Your task to perform on an android device: turn off improve location accuracy Image 0: 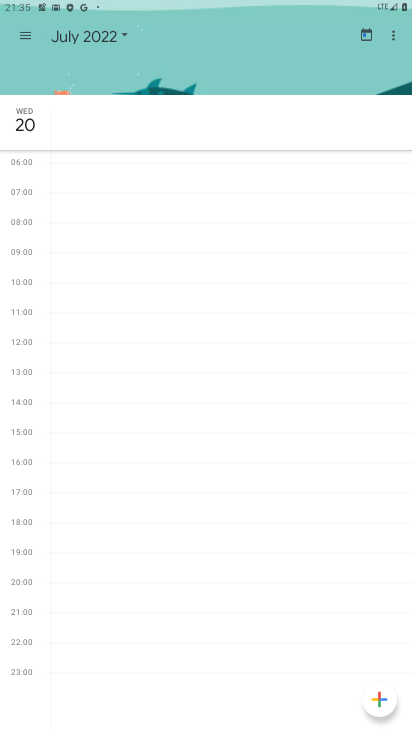
Step 0: press home button
Your task to perform on an android device: turn off improve location accuracy Image 1: 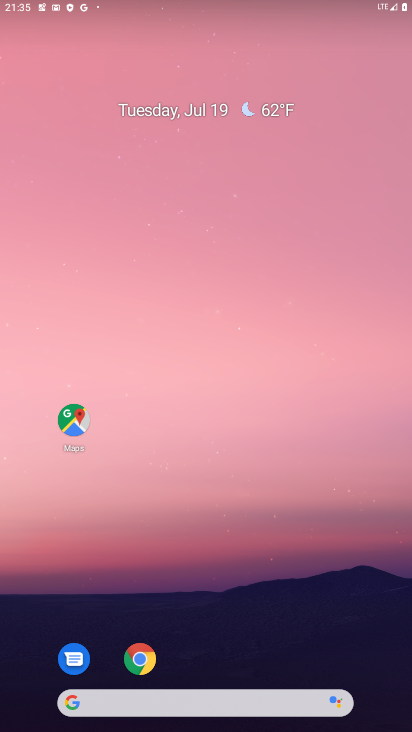
Step 1: drag from (245, 628) to (234, 260)
Your task to perform on an android device: turn off improve location accuracy Image 2: 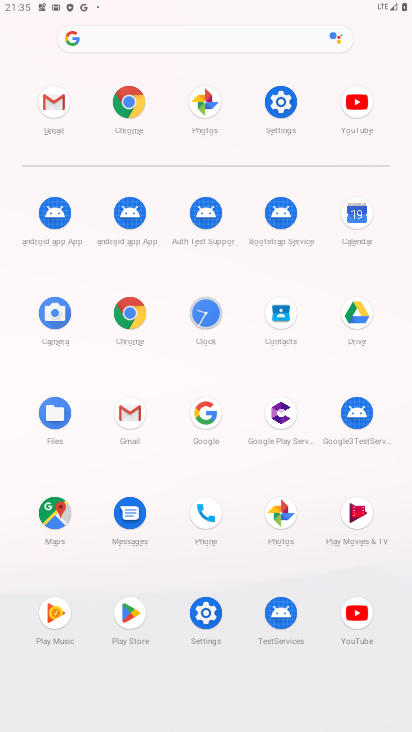
Step 2: click (284, 106)
Your task to perform on an android device: turn off improve location accuracy Image 3: 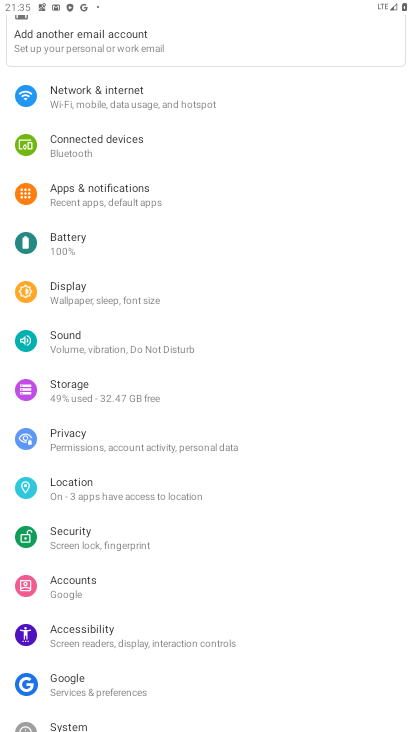
Step 3: click (80, 484)
Your task to perform on an android device: turn off improve location accuracy Image 4: 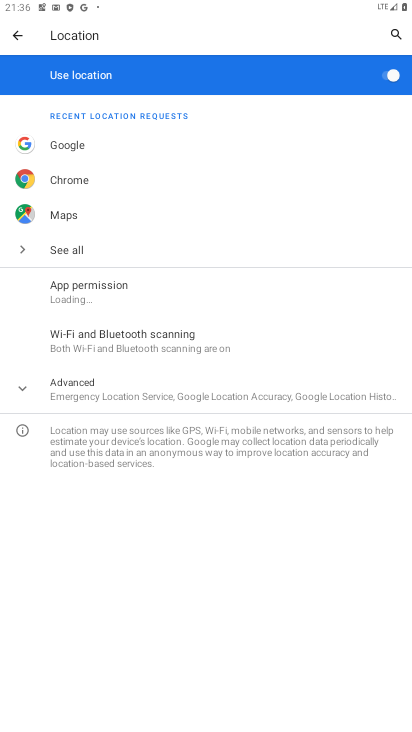
Step 4: click (137, 387)
Your task to perform on an android device: turn off improve location accuracy Image 5: 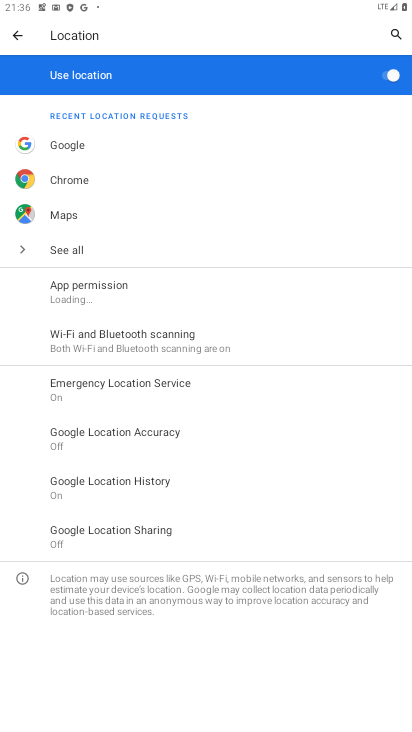
Step 5: click (127, 430)
Your task to perform on an android device: turn off improve location accuracy Image 6: 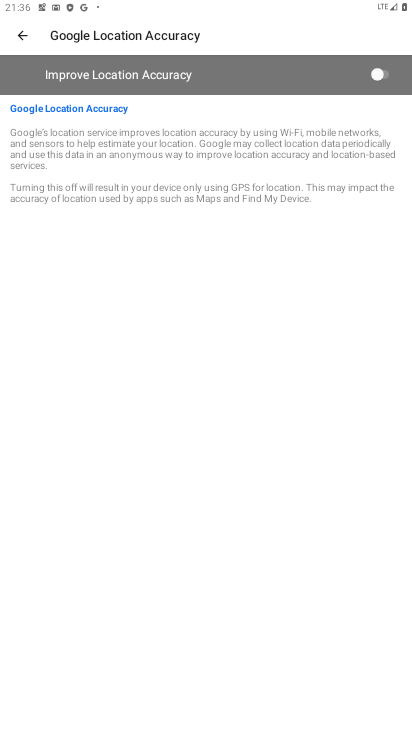
Step 6: task complete